Your task to perform on an android device: turn on translation in the chrome app Image 0: 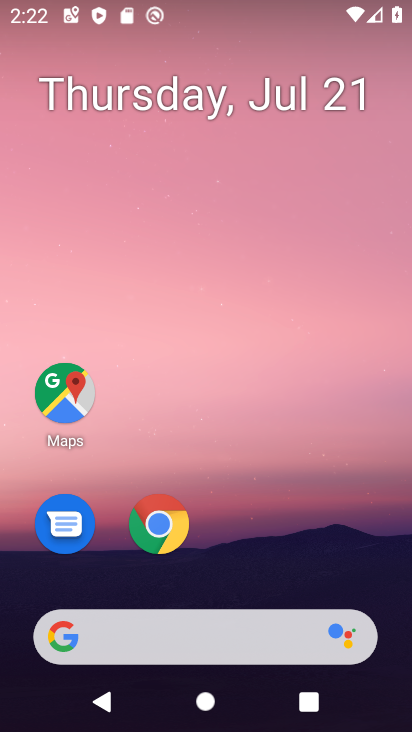
Step 0: click (166, 519)
Your task to perform on an android device: turn on translation in the chrome app Image 1: 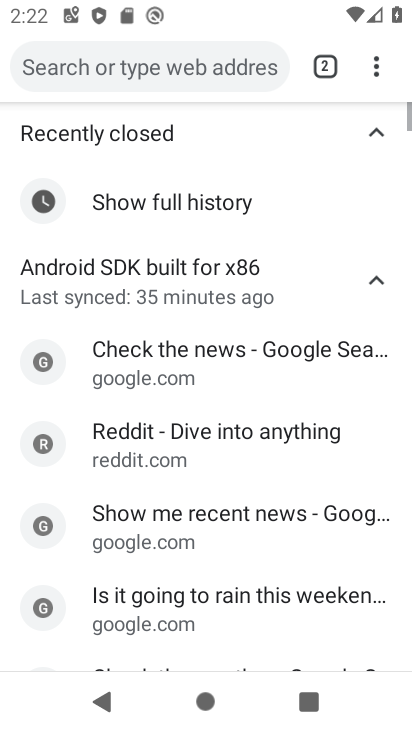
Step 1: click (166, 519)
Your task to perform on an android device: turn on translation in the chrome app Image 2: 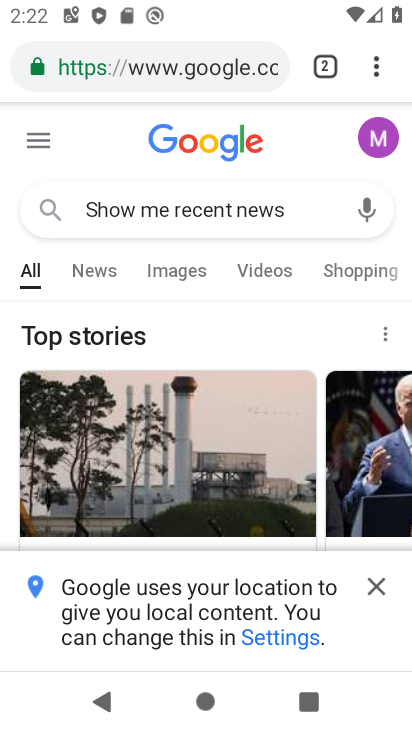
Step 2: press home button
Your task to perform on an android device: turn on translation in the chrome app Image 3: 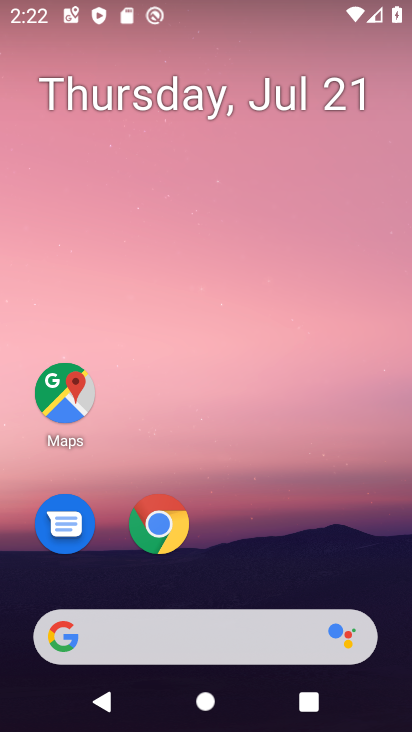
Step 3: click (172, 533)
Your task to perform on an android device: turn on translation in the chrome app Image 4: 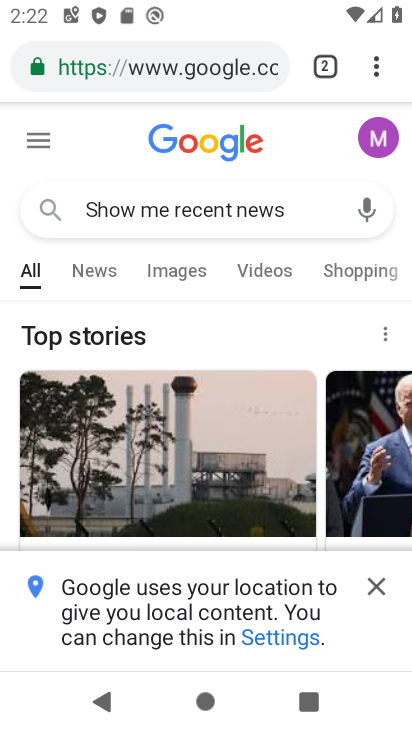
Step 4: click (378, 71)
Your task to perform on an android device: turn on translation in the chrome app Image 5: 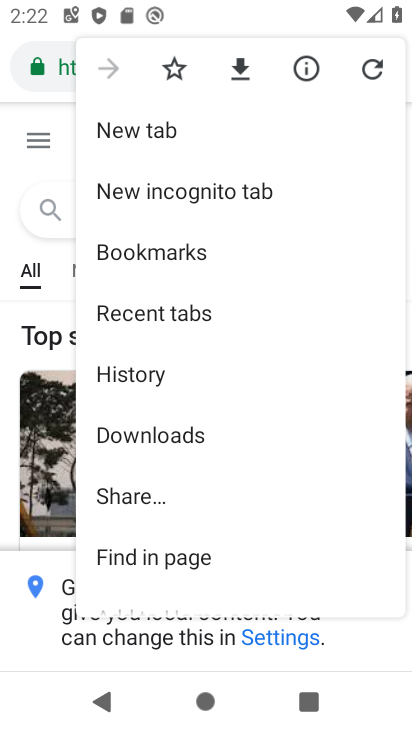
Step 5: drag from (234, 469) to (292, 126)
Your task to perform on an android device: turn on translation in the chrome app Image 6: 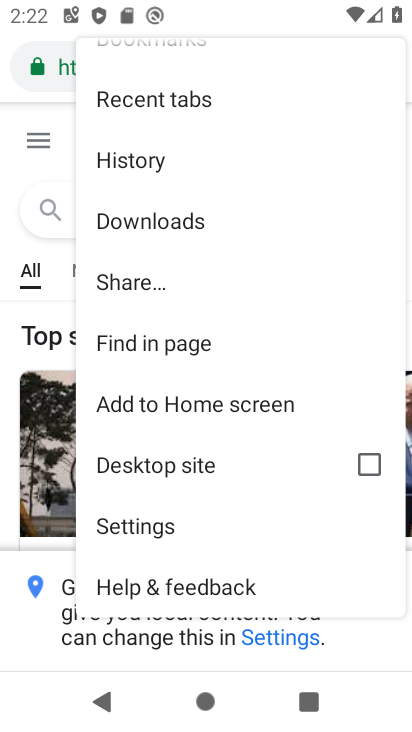
Step 6: click (150, 519)
Your task to perform on an android device: turn on translation in the chrome app Image 7: 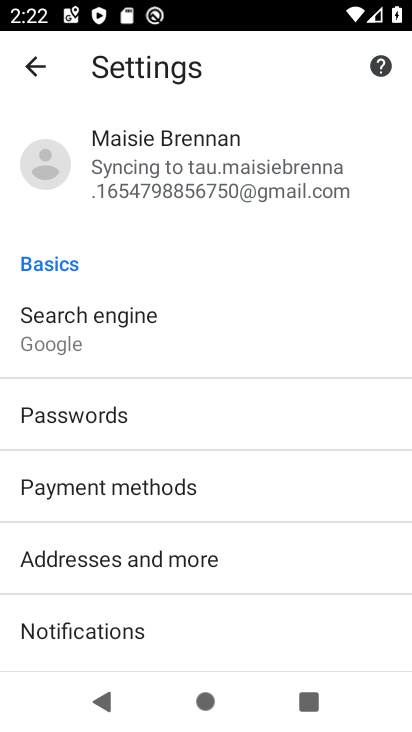
Step 7: drag from (225, 570) to (256, 196)
Your task to perform on an android device: turn on translation in the chrome app Image 8: 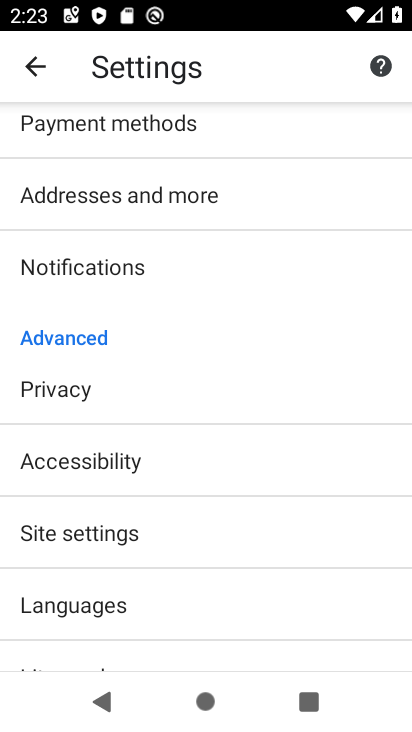
Step 8: click (163, 607)
Your task to perform on an android device: turn on translation in the chrome app Image 9: 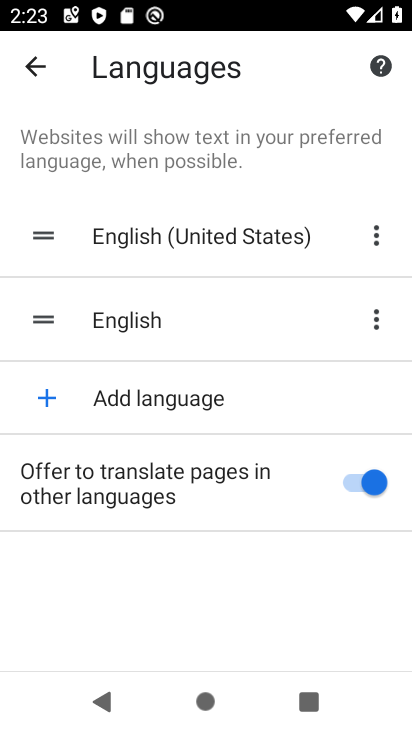
Step 9: task complete